Your task to perform on an android device: Open calendar and show me the first week of next month Image 0: 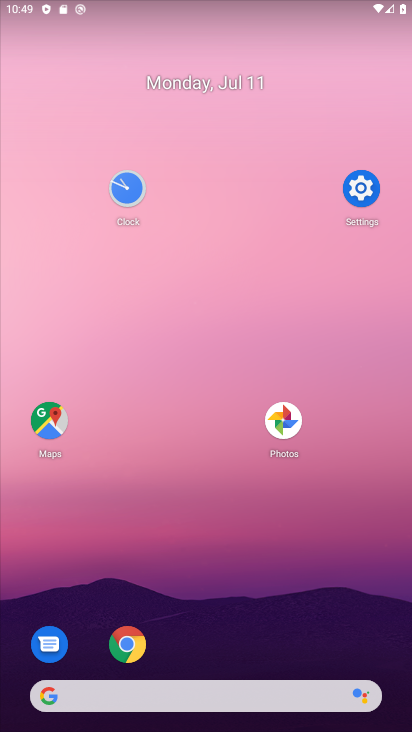
Step 0: drag from (318, 533) to (254, 127)
Your task to perform on an android device: Open calendar and show me the first week of next month Image 1: 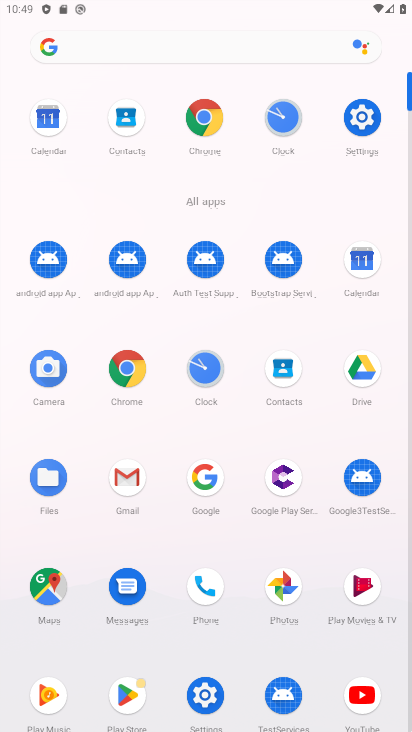
Step 1: drag from (357, 262) to (257, 247)
Your task to perform on an android device: Open calendar and show me the first week of next month Image 2: 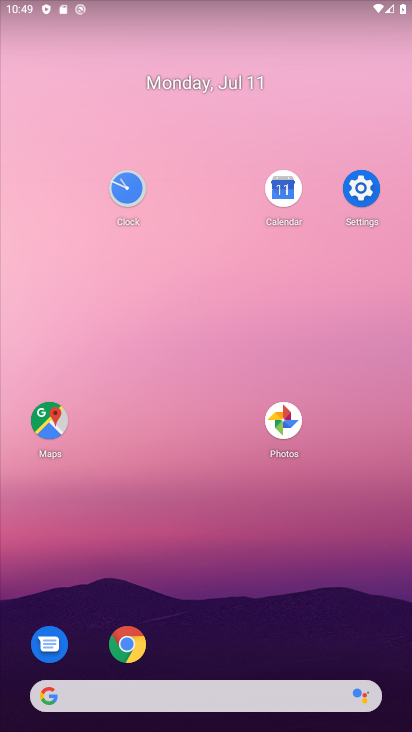
Step 2: click (285, 195)
Your task to perform on an android device: Open calendar and show me the first week of next month Image 3: 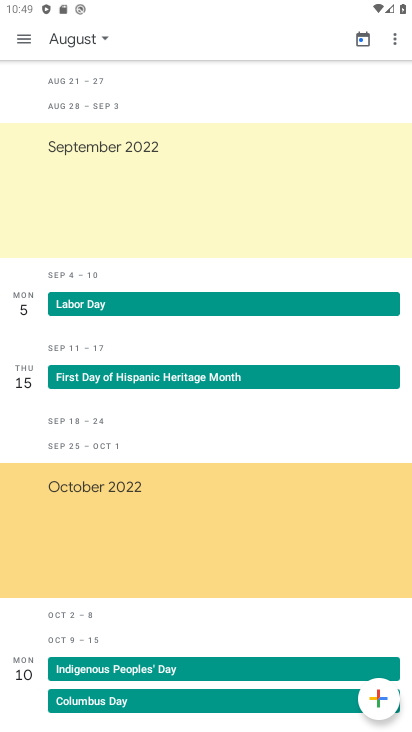
Step 3: click (32, 39)
Your task to perform on an android device: Open calendar and show me the first week of next month Image 4: 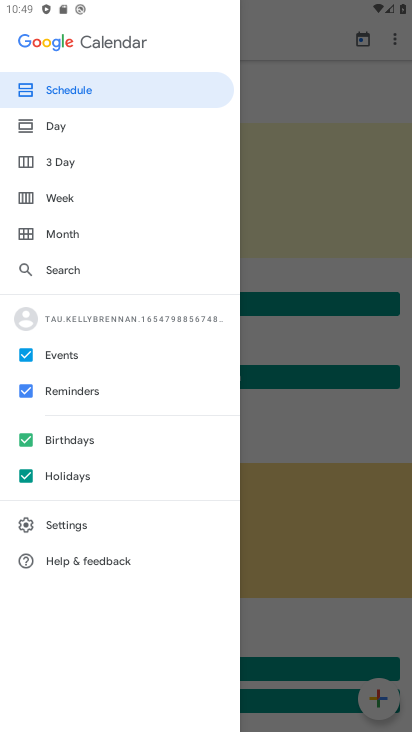
Step 4: click (98, 195)
Your task to perform on an android device: Open calendar and show me the first week of next month Image 5: 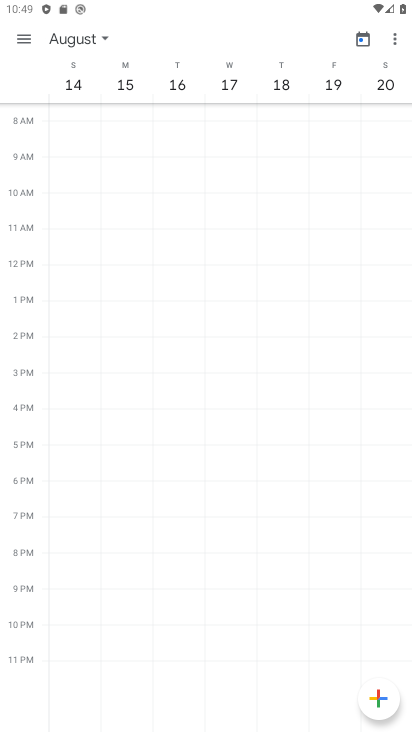
Step 5: task complete